Your task to perform on an android device: open a new tab in the chrome app Image 0: 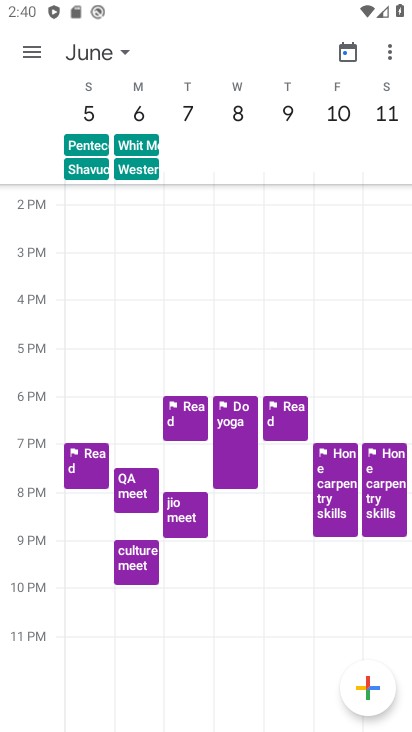
Step 0: press home button
Your task to perform on an android device: open a new tab in the chrome app Image 1: 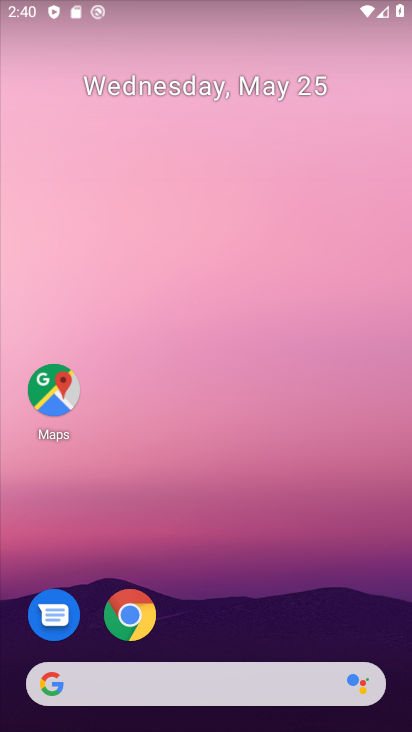
Step 1: click (273, 546)
Your task to perform on an android device: open a new tab in the chrome app Image 2: 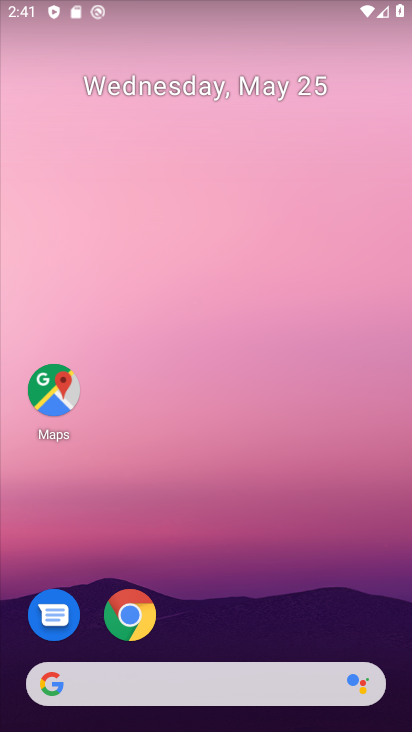
Step 2: click (140, 613)
Your task to perform on an android device: open a new tab in the chrome app Image 3: 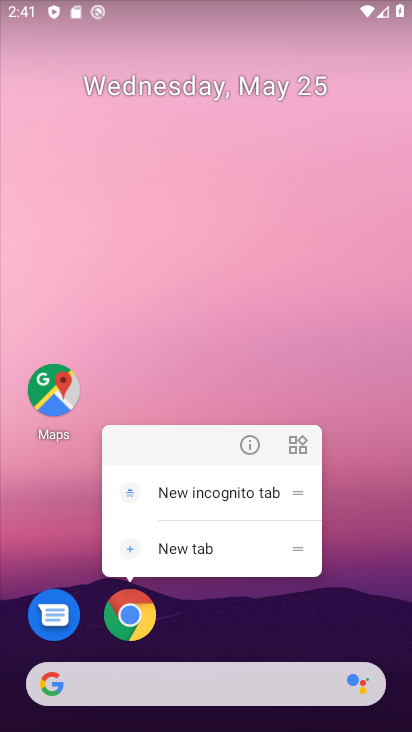
Step 3: click (140, 613)
Your task to perform on an android device: open a new tab in the chrome app Image 4: 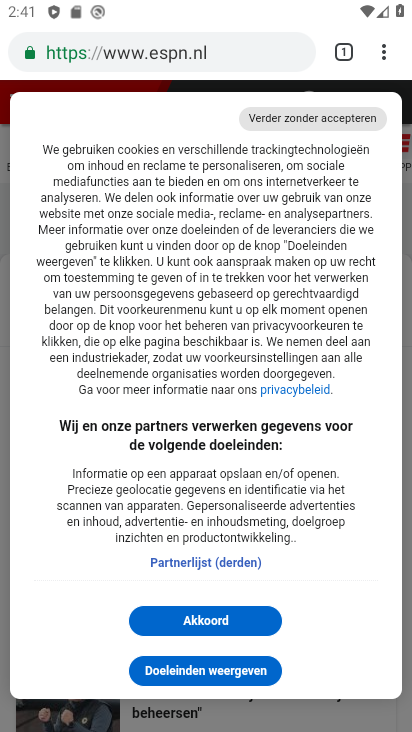
Step 4: click (343, 42)
Your task to perform on an android device: open a new tab in the chrome app Image 5: 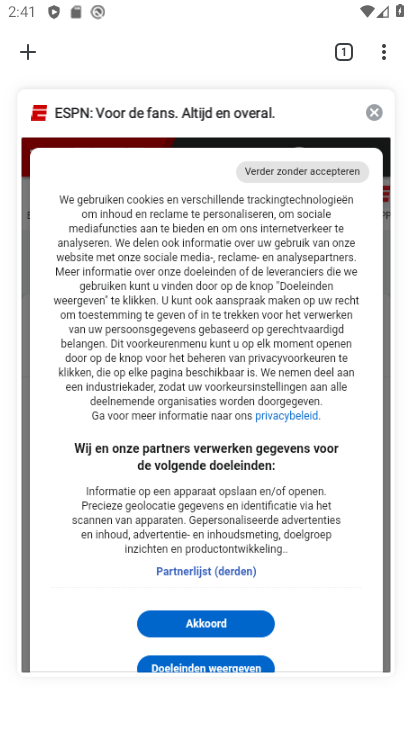
Step 5: click (21, 51)
Your task to perform on an android device: open a new tab in the chrome app Image 6: 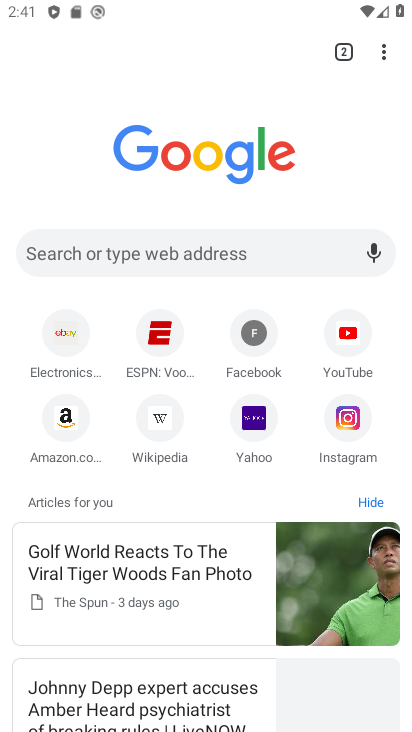
Step 6: drag from (146, 592) to (125, 364)
Your task to perform on an android device: open a new tab in the chrome app Image 7: 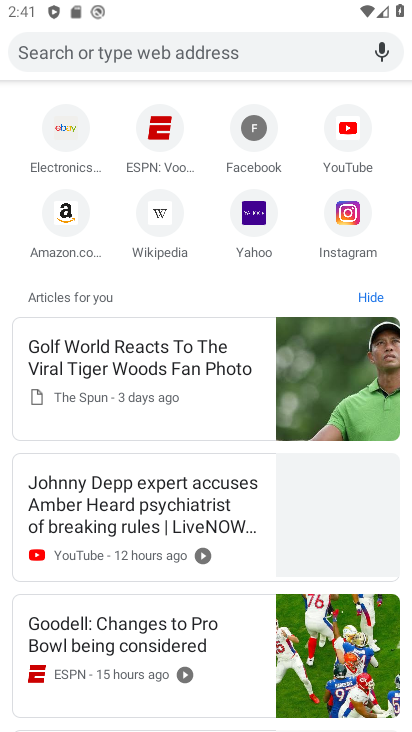
Step 7: drag from (332, 139) to (309, 526)
Your task to perform on an android device: open a new tab in the chrome app Image 8: 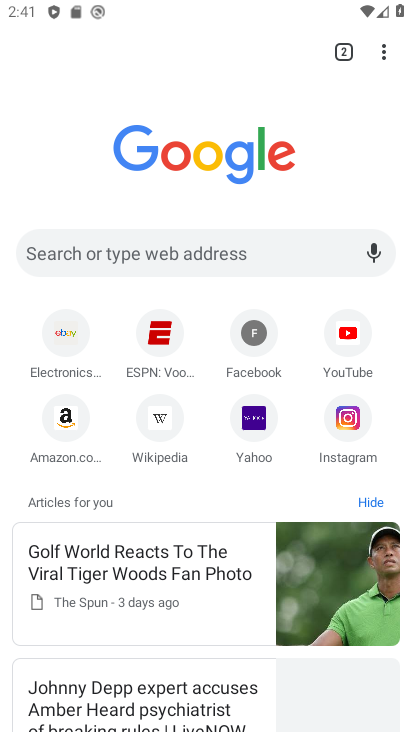
Step 8: click (378, 45)
Your task to perform on an android device: open a new tab in the chrome app Image 9: 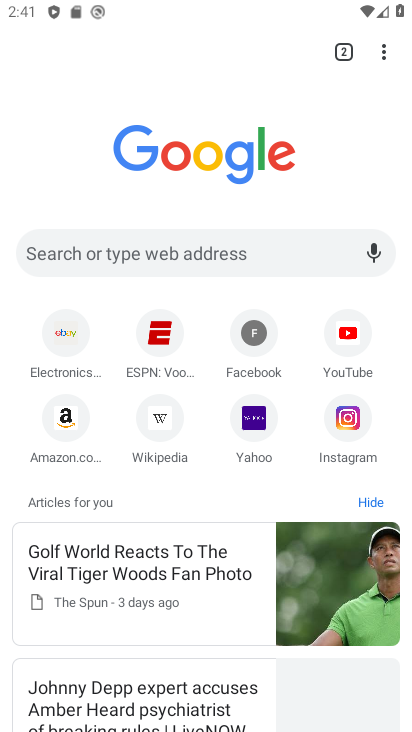
Step 9: task complete